Your task to perform on an android device: delete location history Image 0: 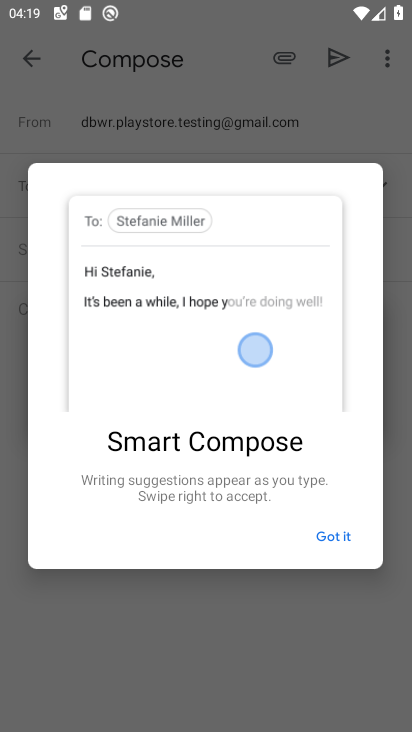
Step 0: press home button
Your task to perform on an android device: delete location history Image 1: 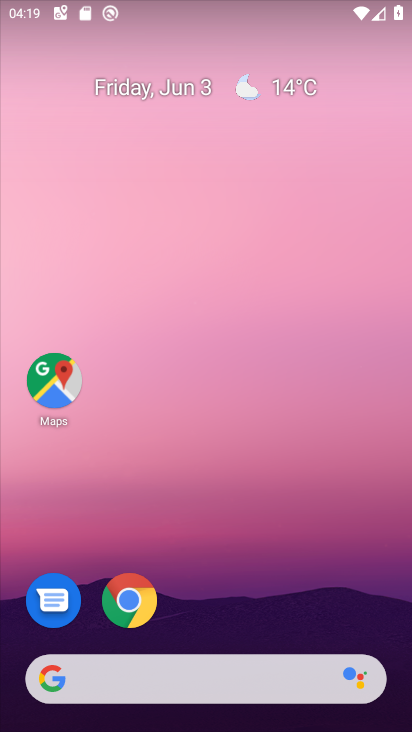
Step 1: drag from (288, 601) to (250, 135)
Your task to perform on an android device: delete location history Image 2: 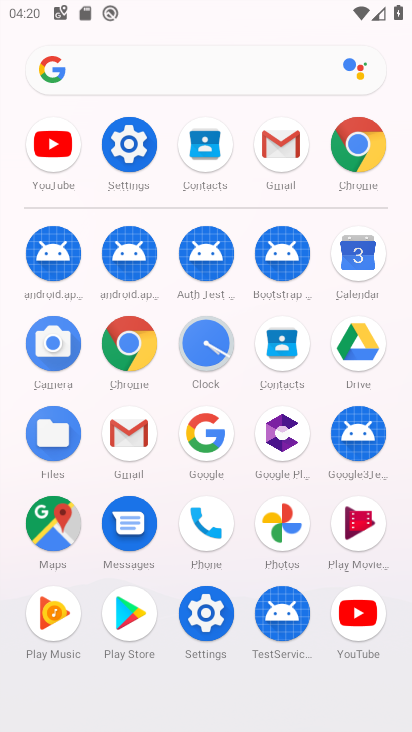
Step 2: click (49, 523)
Your task to perform on an android device: delete location history Image 3: 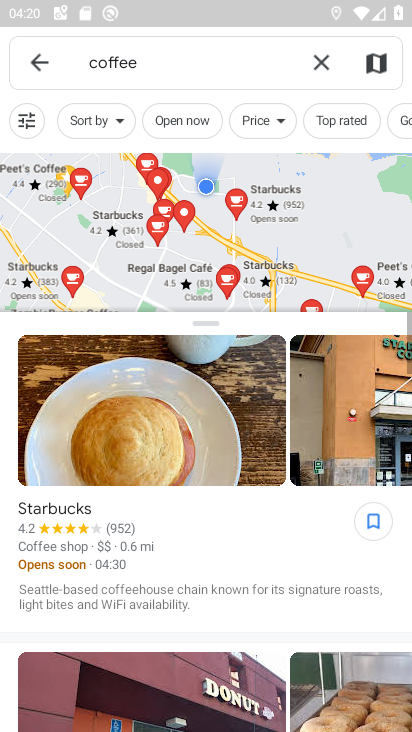
Step 3: click (34, 55)
Your task to perform on an android device: delete location history Image 4: 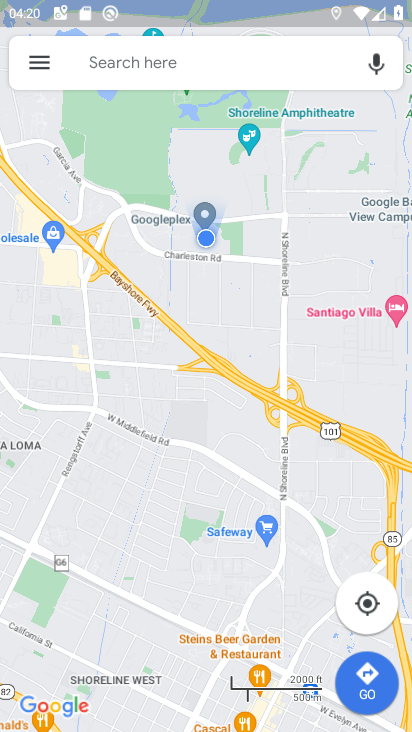
Step 4: click (36, 56)
Your task to perform on an android device: delete location history Image 5: 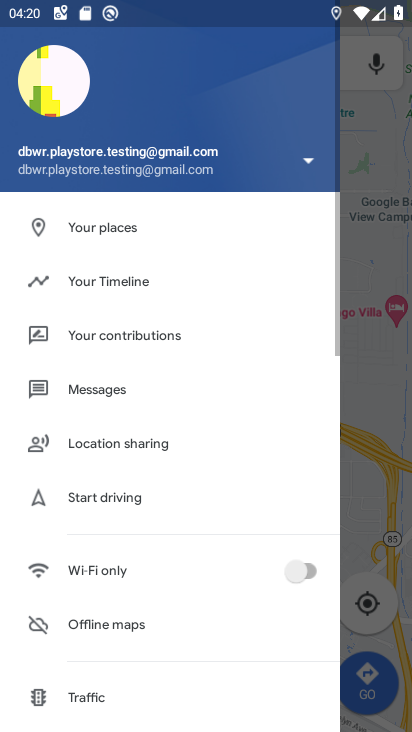
Step 5: drag from (155, 540) to (215, 206)
Your task to perform on an android device: delete location history Image 6: 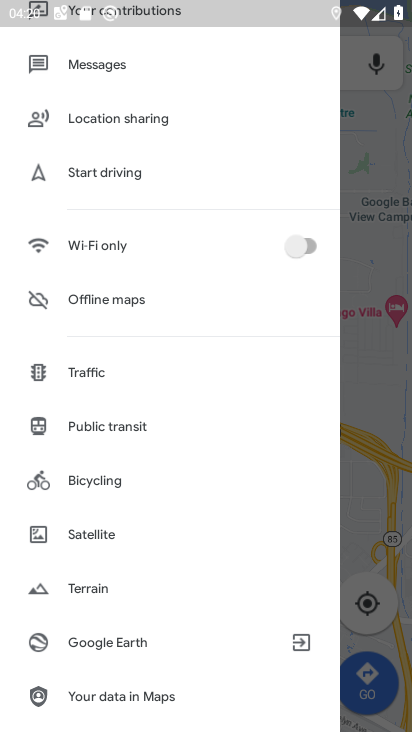
Step 6: drag from (164, 608) to (222, 223)
Your task to perform on an android device: delete location history Image 7: 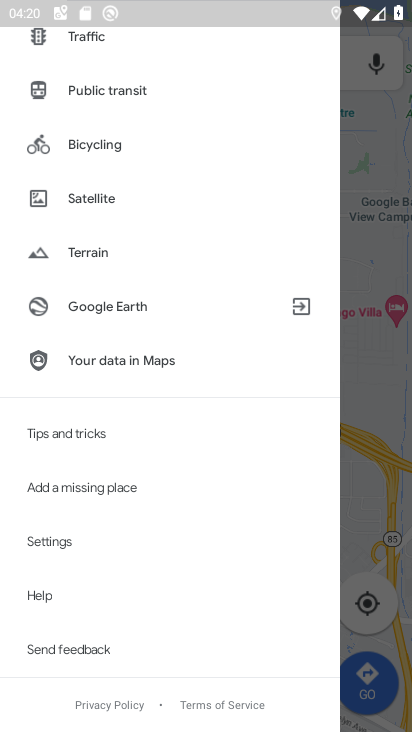
Step 7: drag from (167, 198) to (131, 533)
Your task to perform on an android device: delete location history Image 8: 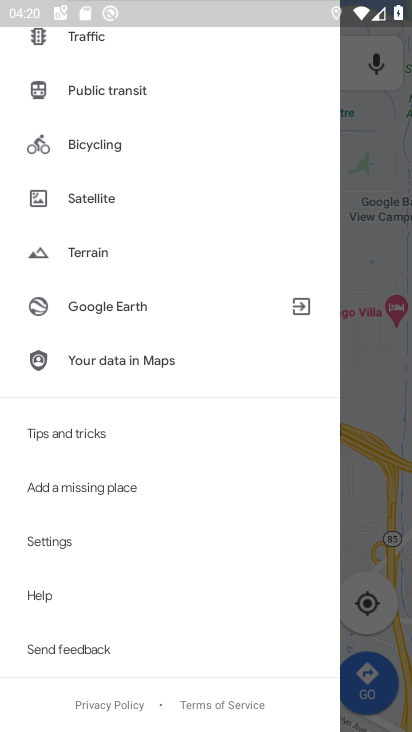
Step 8: click (56, 537)
Your task to perform on an android device: delete location history Image 9: 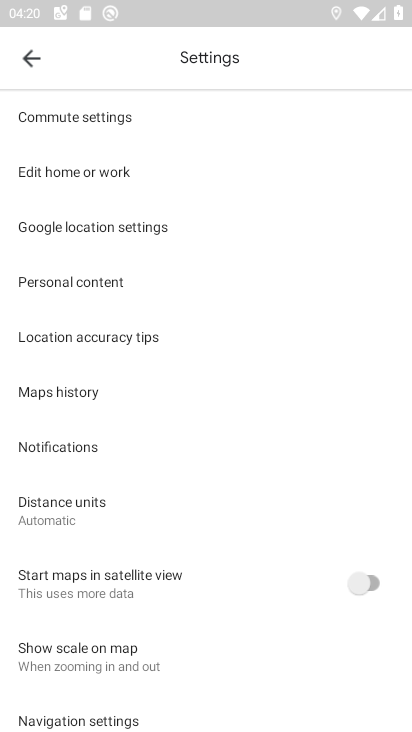
Step 9: click (89, 387)
Your task to perform on an android device: delete location history Image 10: 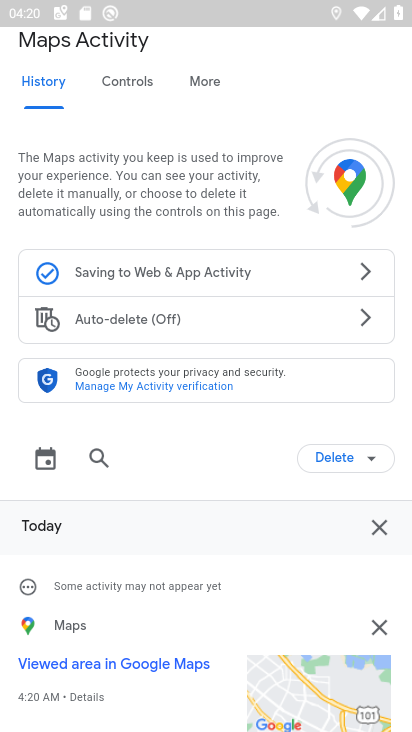
Step 10: click (366, 457)
Your task to perform on an android device: delete location history Image 11: 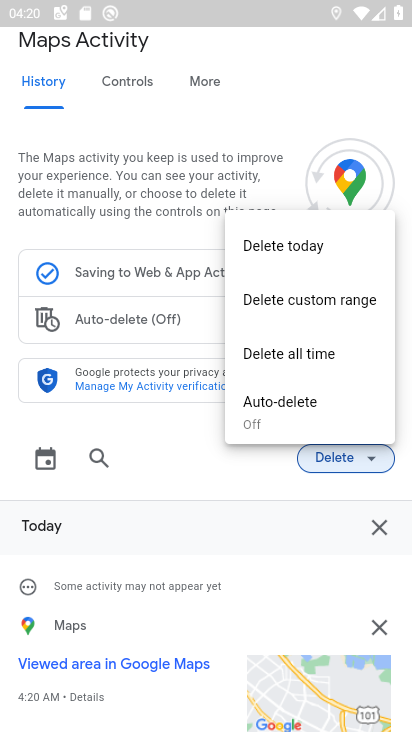
Step 11: click (303, 353)
Your task to perform on an android device: delete location history Image 12: 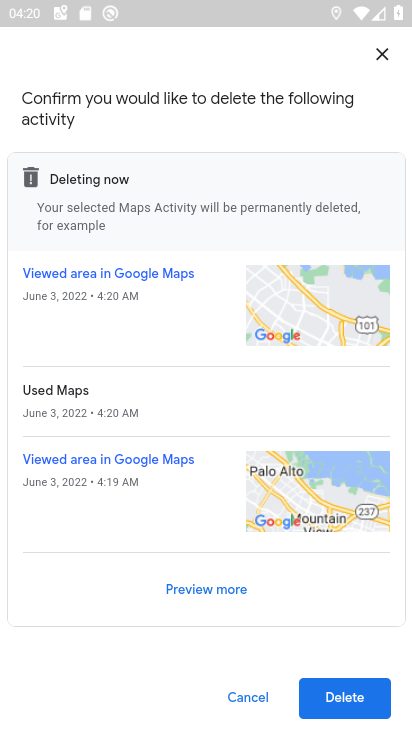
Step 12: click (361, 712)
Your task to perform on an android device: delete location history Image 13: 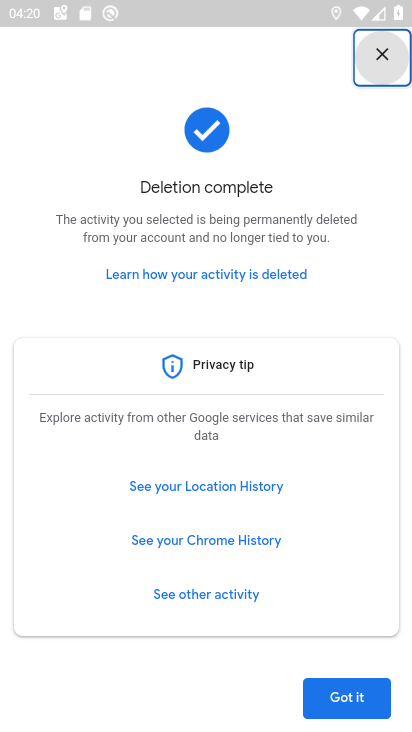
Step 13: task complete